Your task to perform on an android device: Open Google Chrome Image 0: 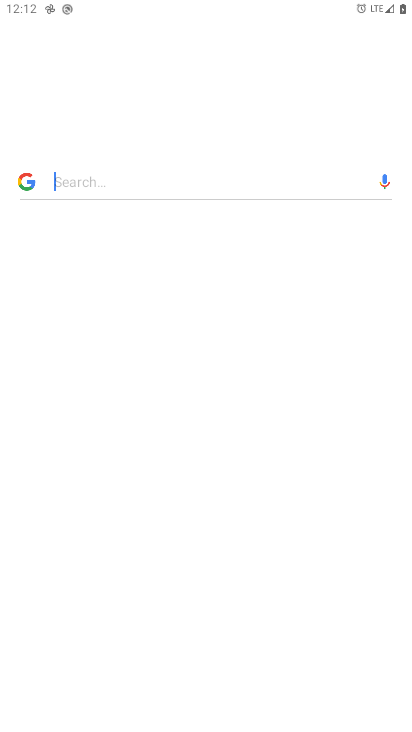
Step 0: press home button
Your task to perform on an android device: Open Google Chrome Image 1: 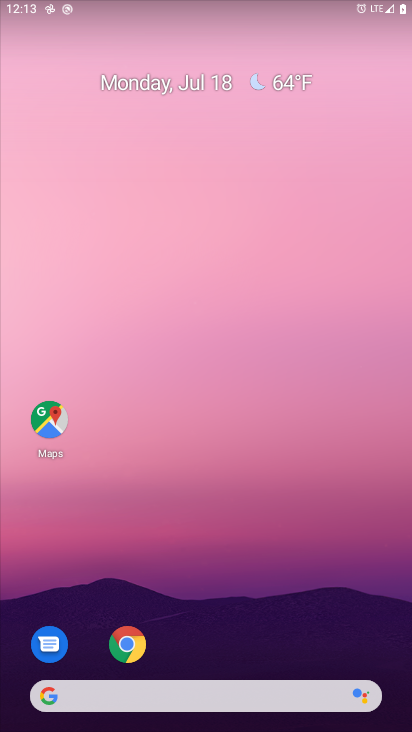
Step 1: click (141, 650)
Your task to perform on an android device: Open Google Chrome Image 2: 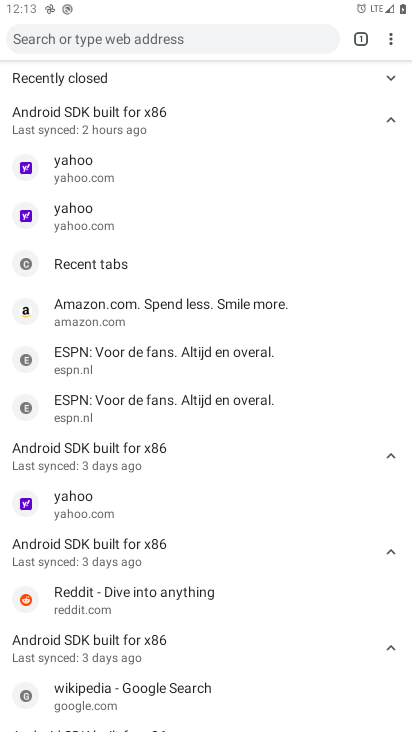
Step 2: click (366, 40)
Your task to perform on an android device: Open Google Chrome Image 3: 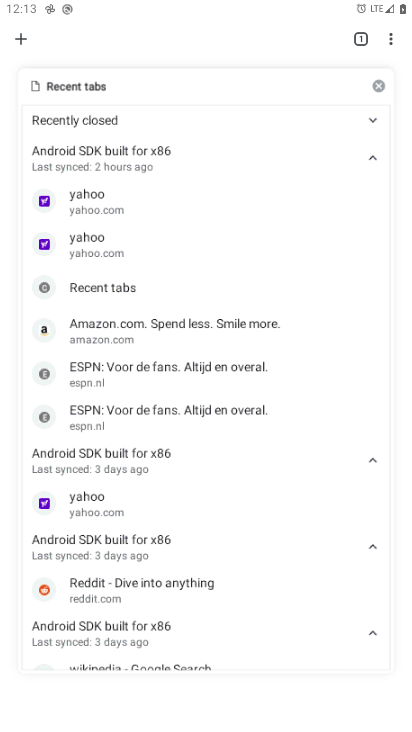
Step 3: click (24, 39)
Your task to perform on an android device: Open Google Chrome Image 4: 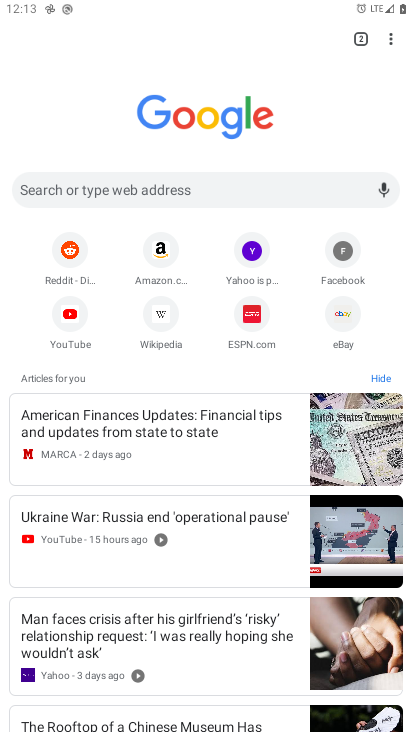
Step 4: task complete